Your task to perform on an android device: turn on the 24-hour format for clock Image 0: 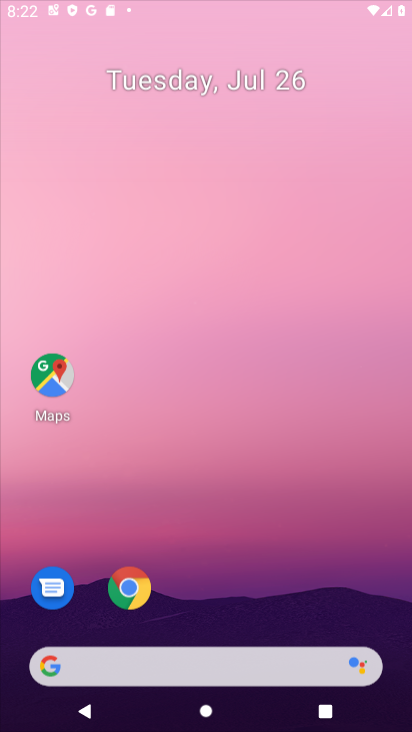
Step 0: press home button
Your task to perform on an android device: turn on the 24-hour format for clock Image 1: 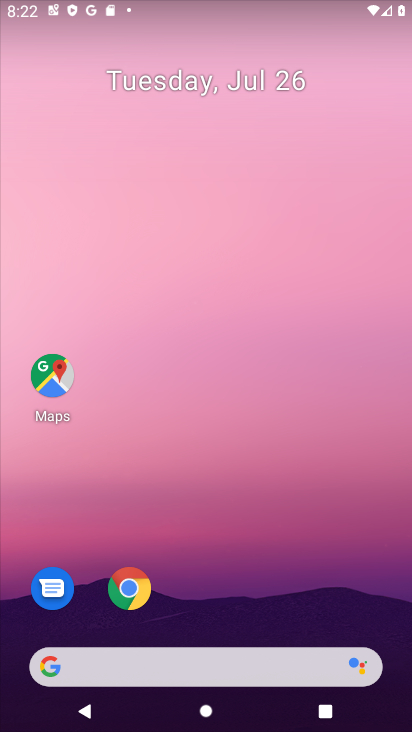
Step 1: press home button
Your task to perform on an android device: turn on the 24-hour format for clock Image 2: 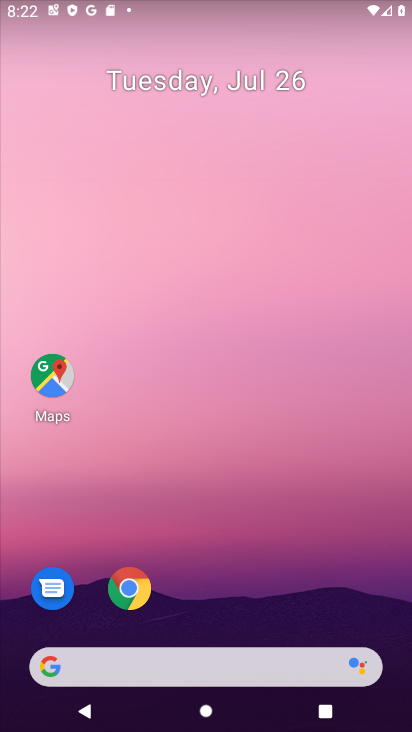
Step 2: drag from (239, 584) to (273, 79)
Your task to perform on an android device: turn on the 24-hour format for clock Image 3: 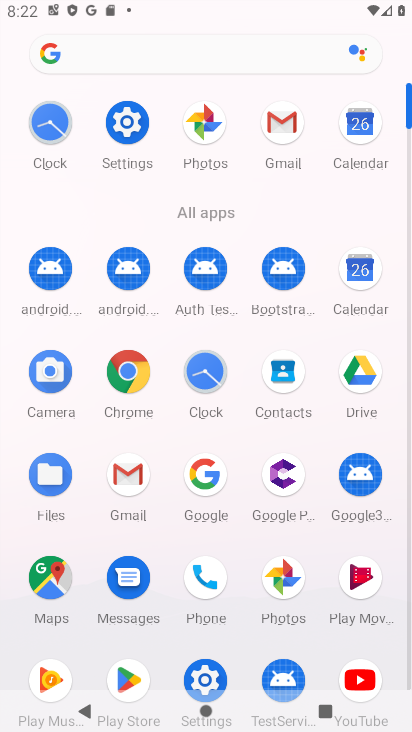
Step 3: click (42, 115)
Your task to perform on an android device: turn on the 24-hour format for clock Image 4: 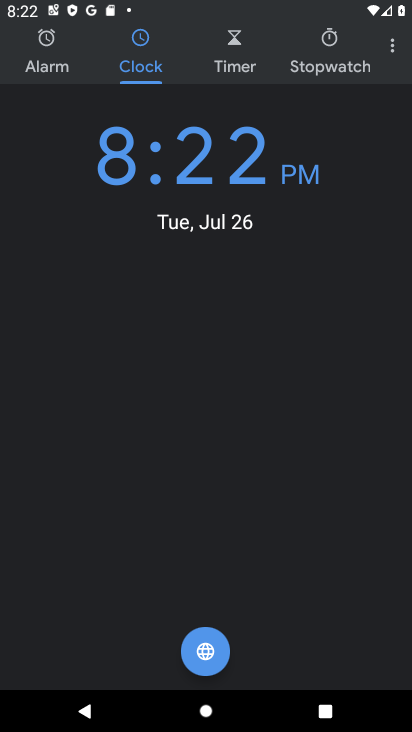
Step 4: click (395, 54)
Your task to perform on an android device: turn on the 24-hour format for clock Image 5: 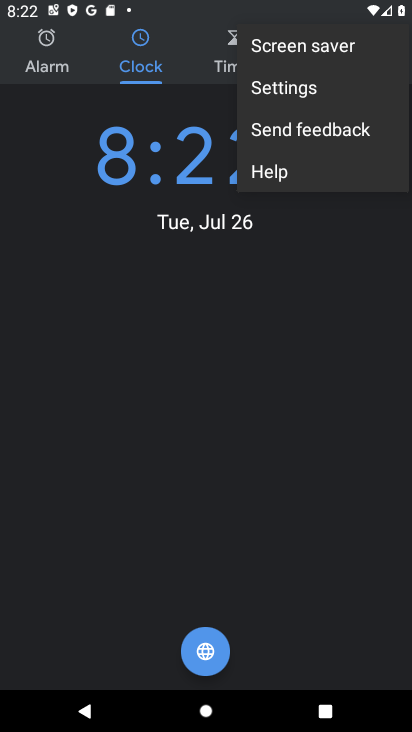
Step 5: click (289, 93)
Your task to perform on an android device: turn on the 24-hour format for clock Image 6: 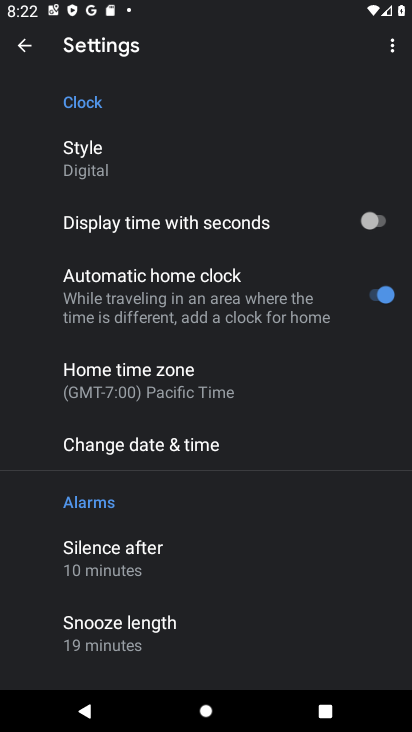
Step 6: click (166, 443)
Your task to perform on an android device: turn on the 24-hour format for clock Image 7: 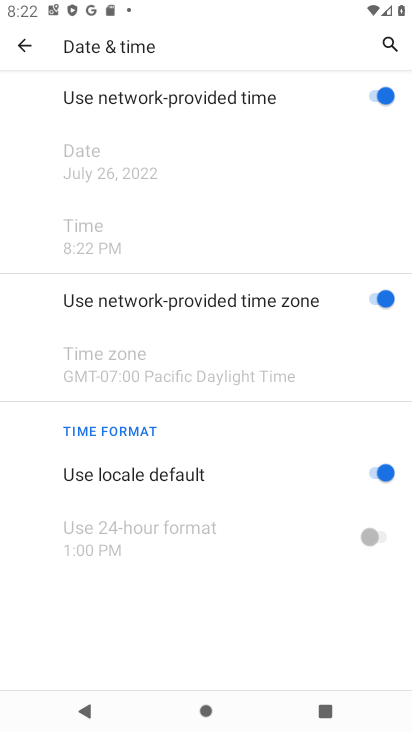
Step 7: click (385, 470)
Your task to perform on an android device: turn on the 24-hour format for clock Image 8: 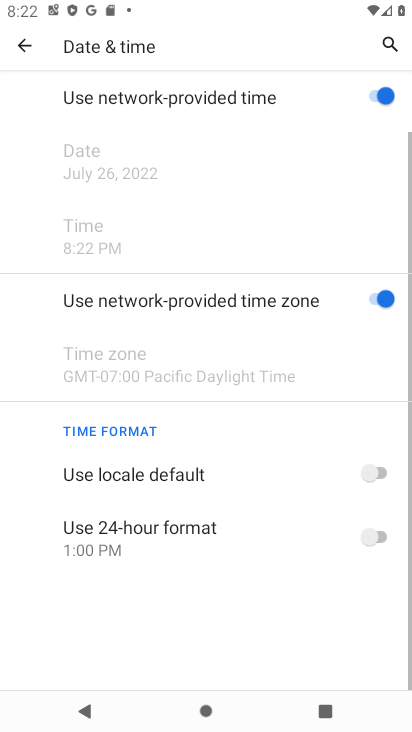
Step 8: click (373, 540)
Your task to perform on an android device: turn on the 24-hour format for clock Image 9: 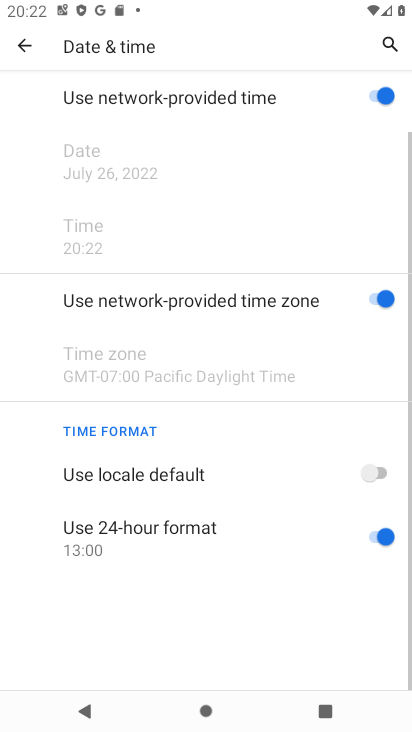
Step 9: task complete